Your task to perform on an android device: toggle notifications settings in the gmail app Image 0: 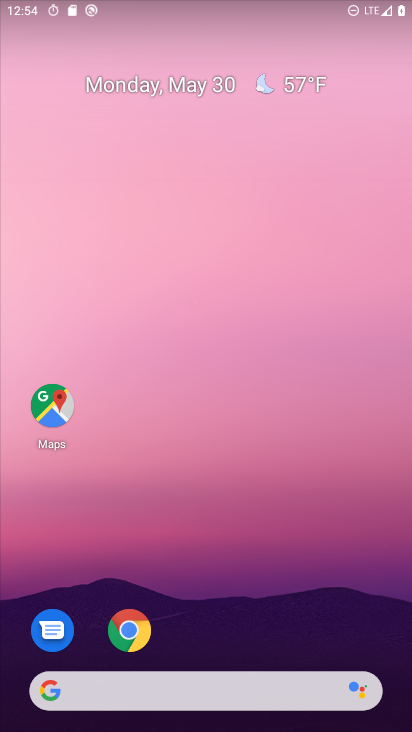
Step 0: drag from (241, 629) to (182, 15)
Your task to perform on an android device: toggle notifications settings in the gmail app Image 1: 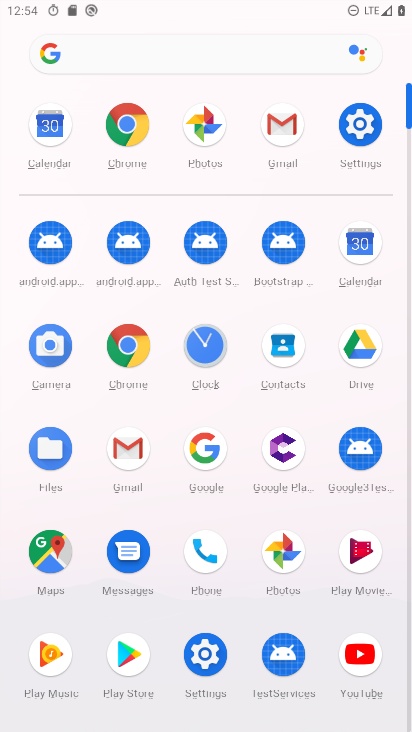
Step 1: click (144, 463)
Your task to perform on an android device: toggle notifications settings in the gmail app Image 2: 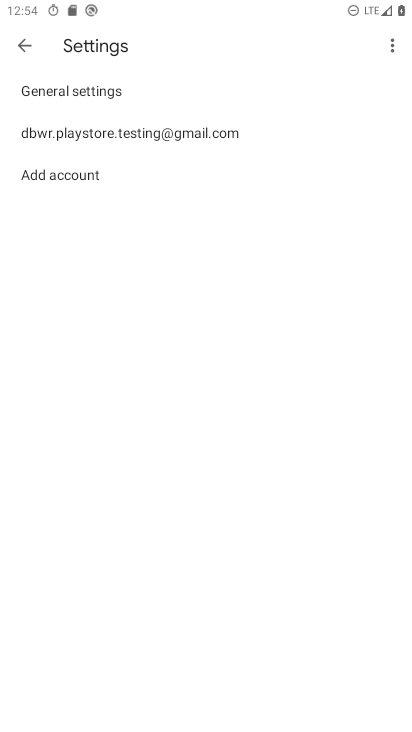
Step 2: click (10, 29)
Your task to perform on an android device: toggle notifications settings in the gmail app Image 3: 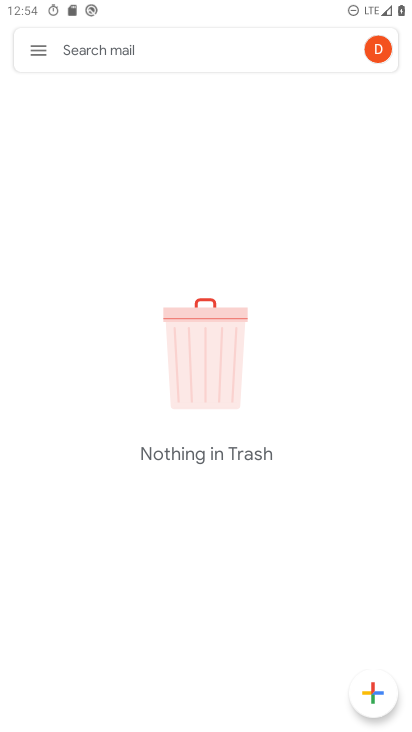
Step 3: click (42, 45)
Your task to perform on an android device: toggle notifications settings in the gmail app Image 4: 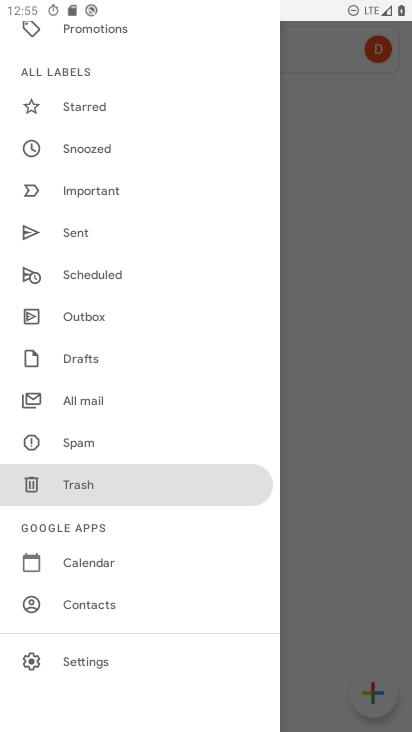
Step 4: click (86, 658)
Your task to perform on an android device: toggle notifications settings in the gmail app Image 5: 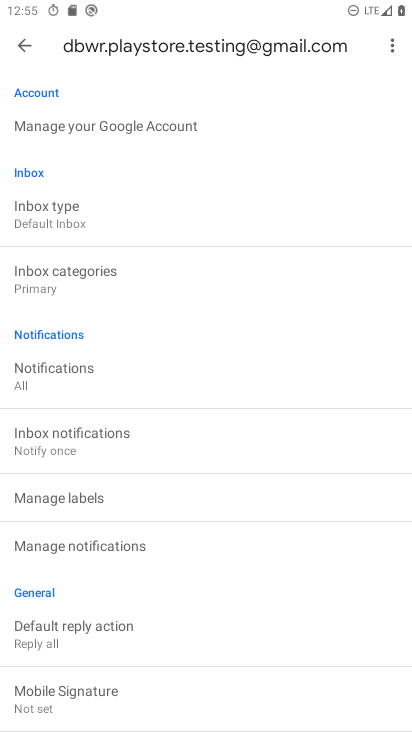
Step 5: click (57, 369)
Your task to perform on an android device: toggle notifications settings in the gmail app Image 6: 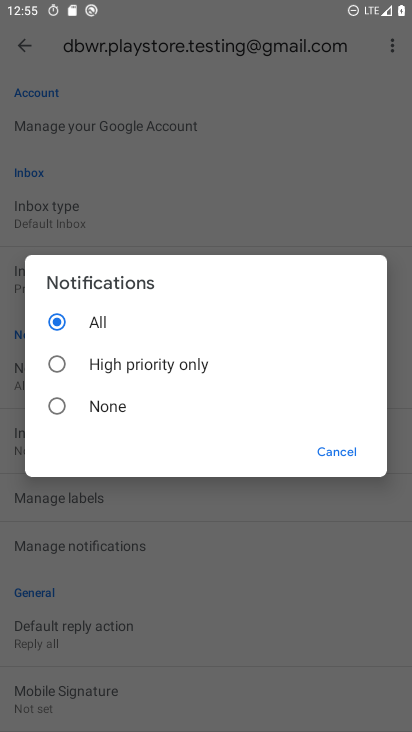
Step 6: task complete